Your task to perform on an android device: Open the phone app and click the voicemail tab. Image 0: 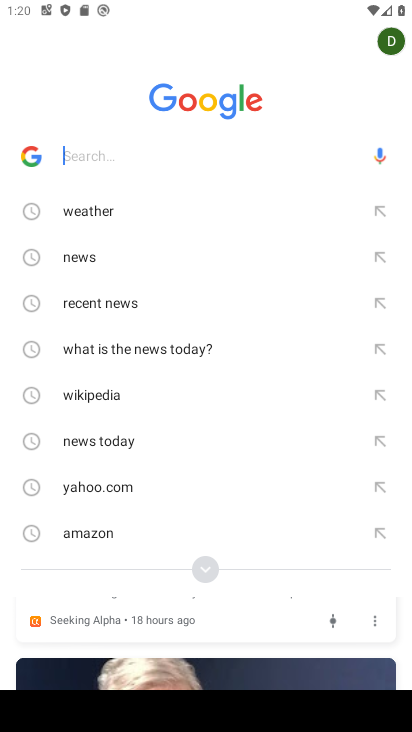
Step 0: press home button
Your task to perform on an android device: Open the phone app and click the voicemail tab. Image 1: 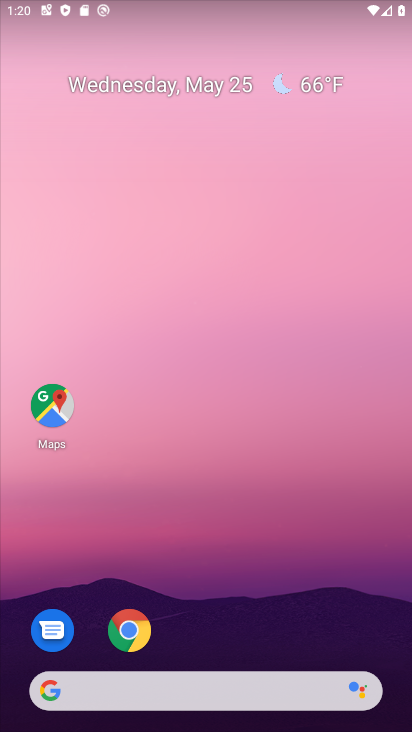
Step 1: drag from (224, 654) to (225, 5)
Your task to perform on an android device: Open the phone app and click the voicemail tab. Image 2: 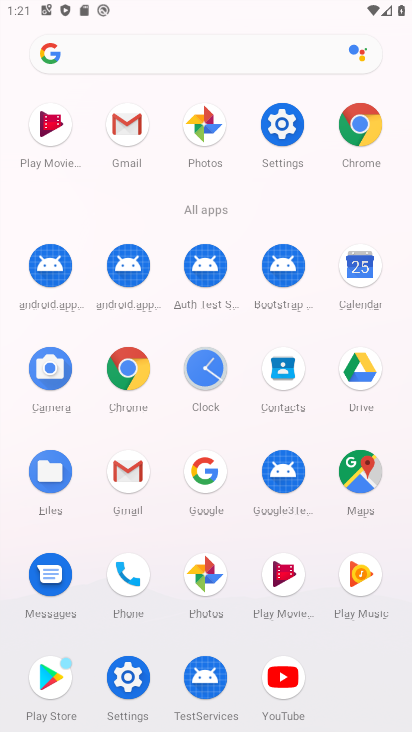
Step 2: click (127, 572)
Your task to perform on an android device: Open the phone app and click the voicemail tab. Image 3: 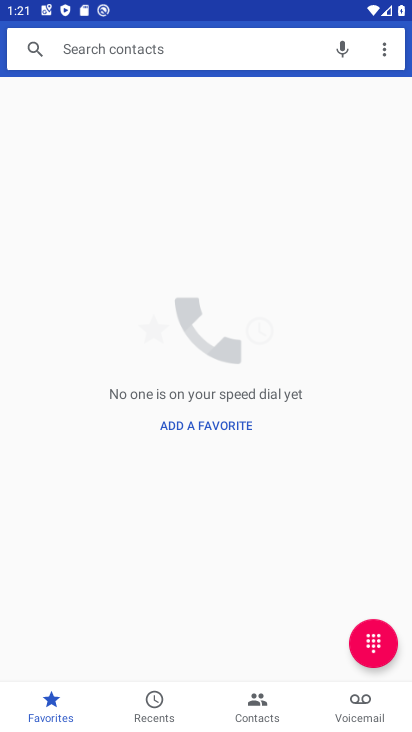
Step 3: click (354, 694)
Your task to perform on an android device: Open the phone app and click the voicemail tab. Image 4: 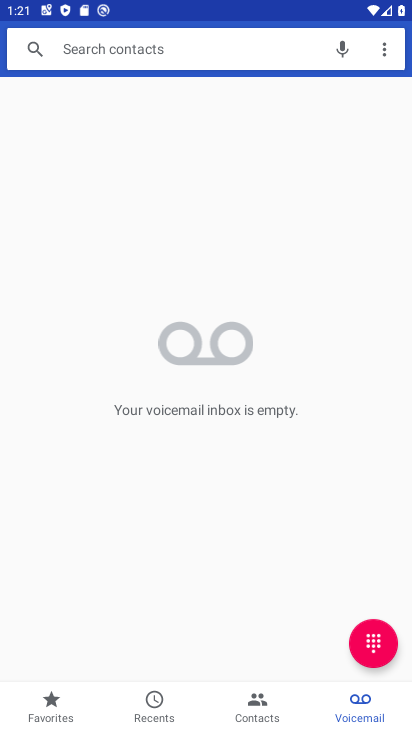
Step 4: task complete